Your task to perform on an android device: Open privacy settings Image 0: 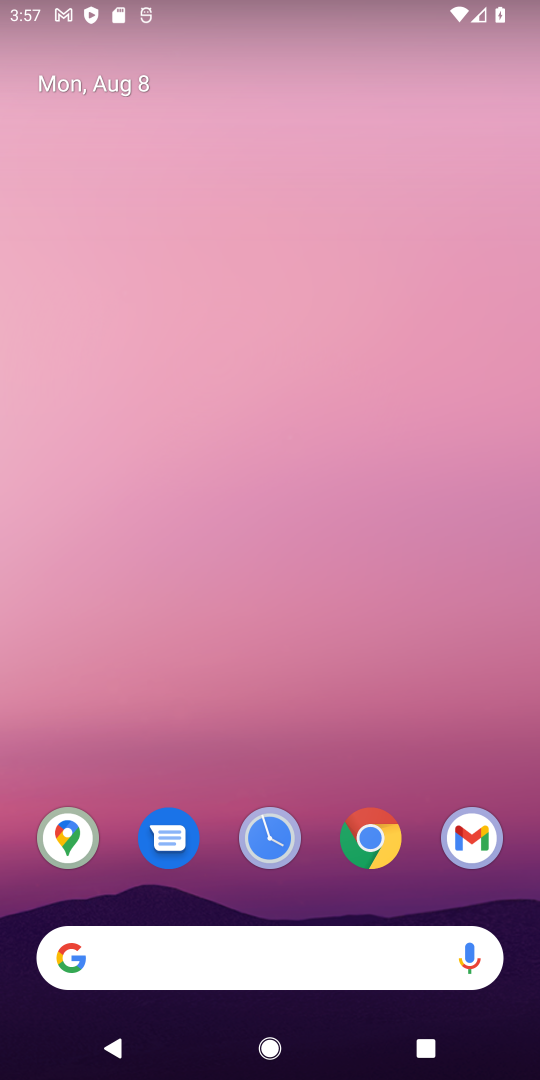
Step 0: drag from (295, 968) to (260, 386)
Your task to perform on an android device: Open privacy settings Image 1: 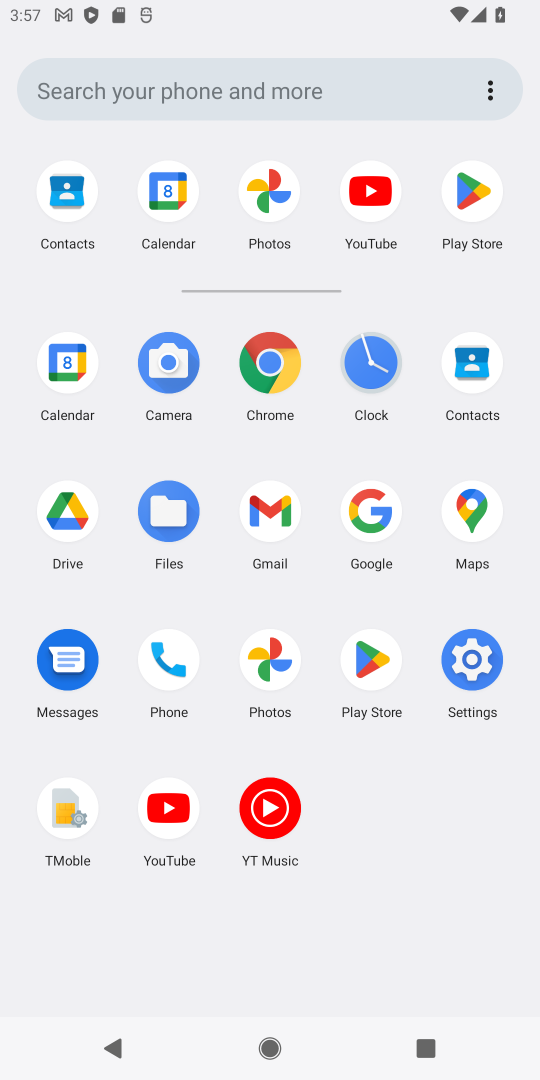
Step 1: click (483, 662)
Your task to perform on an android device: Open privacy settings Image 2: 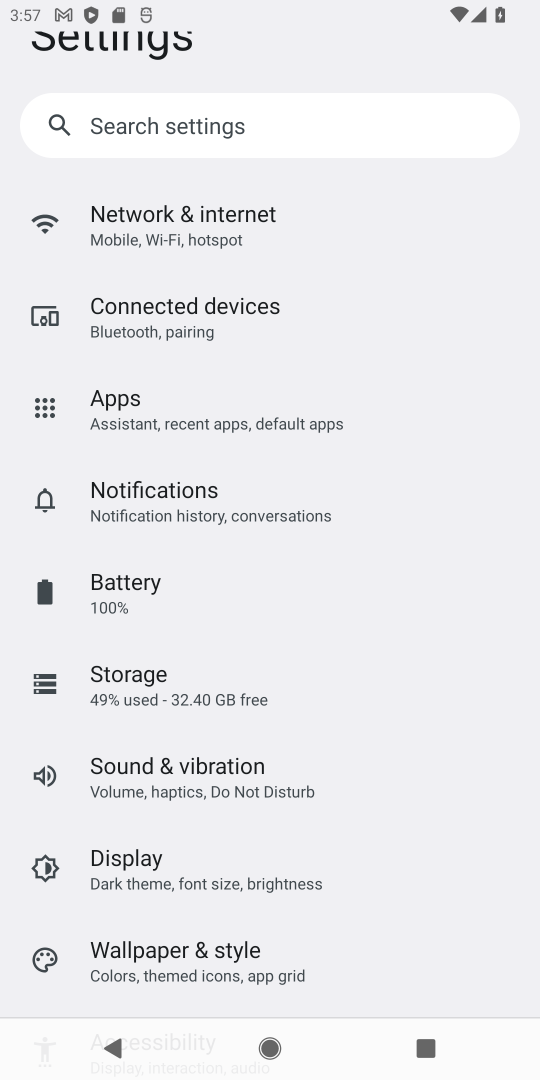
Step 2: drag from (190, 826) to (236, 707)
Your task to perform on an android device: Open privacy settings Image 3: 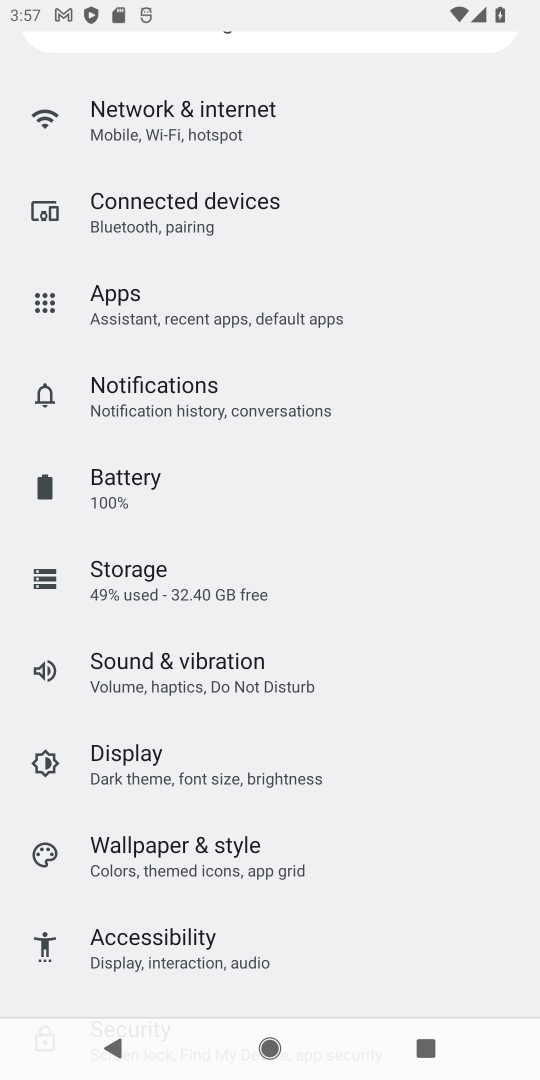
Step 3: drag from (167, 903) to (245, 778)
Your task to perform on an android device: Open privacy settings Image 4: 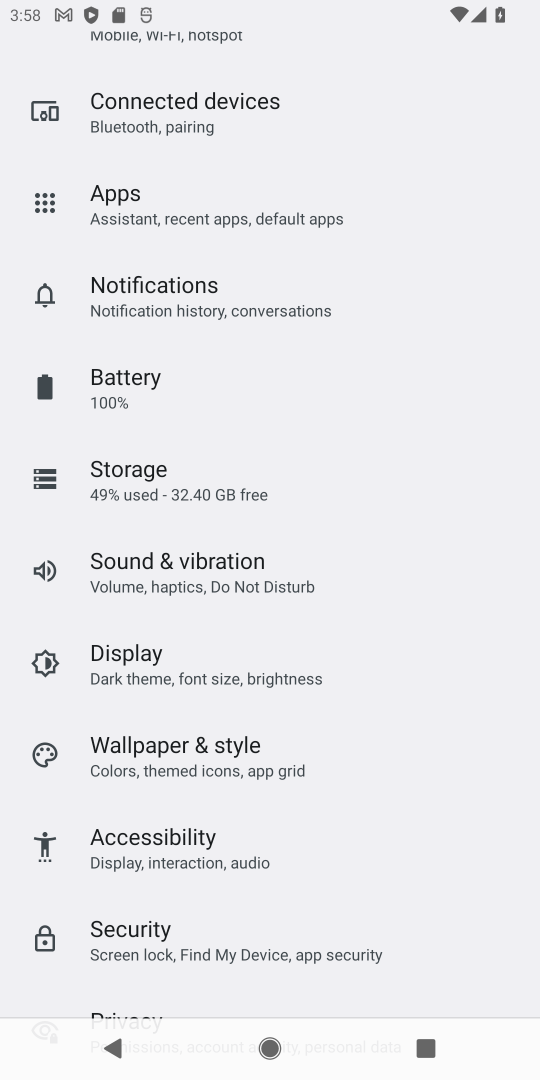
Step 4: drag from (165, 906) to (250, 771)
Your task to perform on an android device: Open privacy settings Image 5: 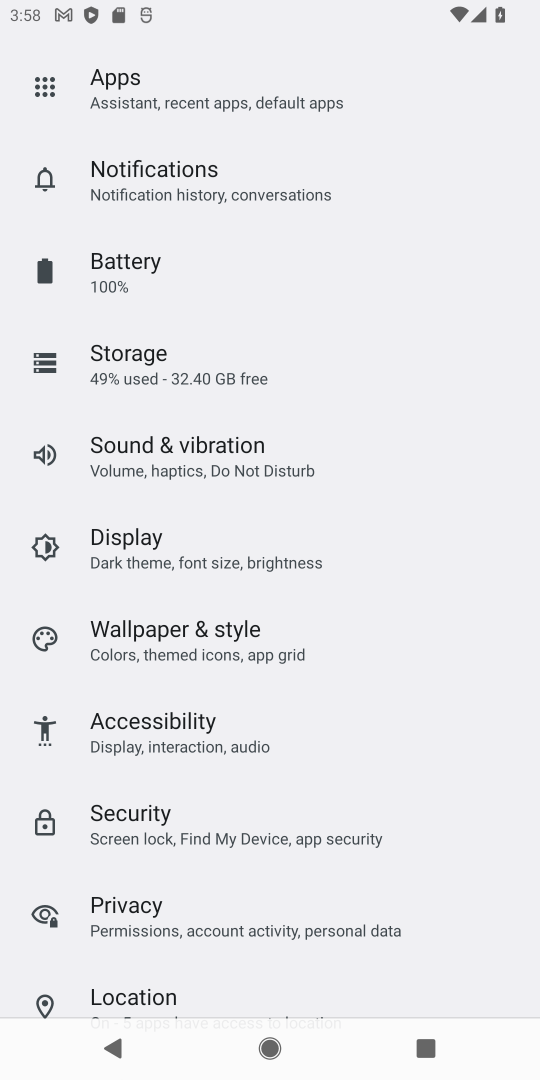
Step 5: click (126, 913)
Your task to perform on an android device: Open privacy settings Image 6: 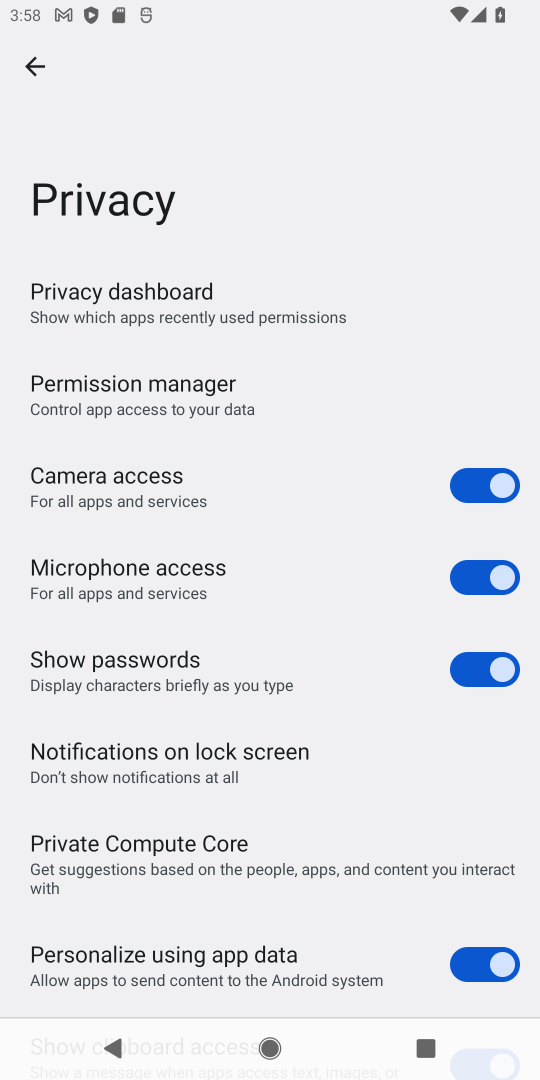
Step 6: task complete